Your task to perform on an android device: Search for pizza restaurants on Maps Image 0: 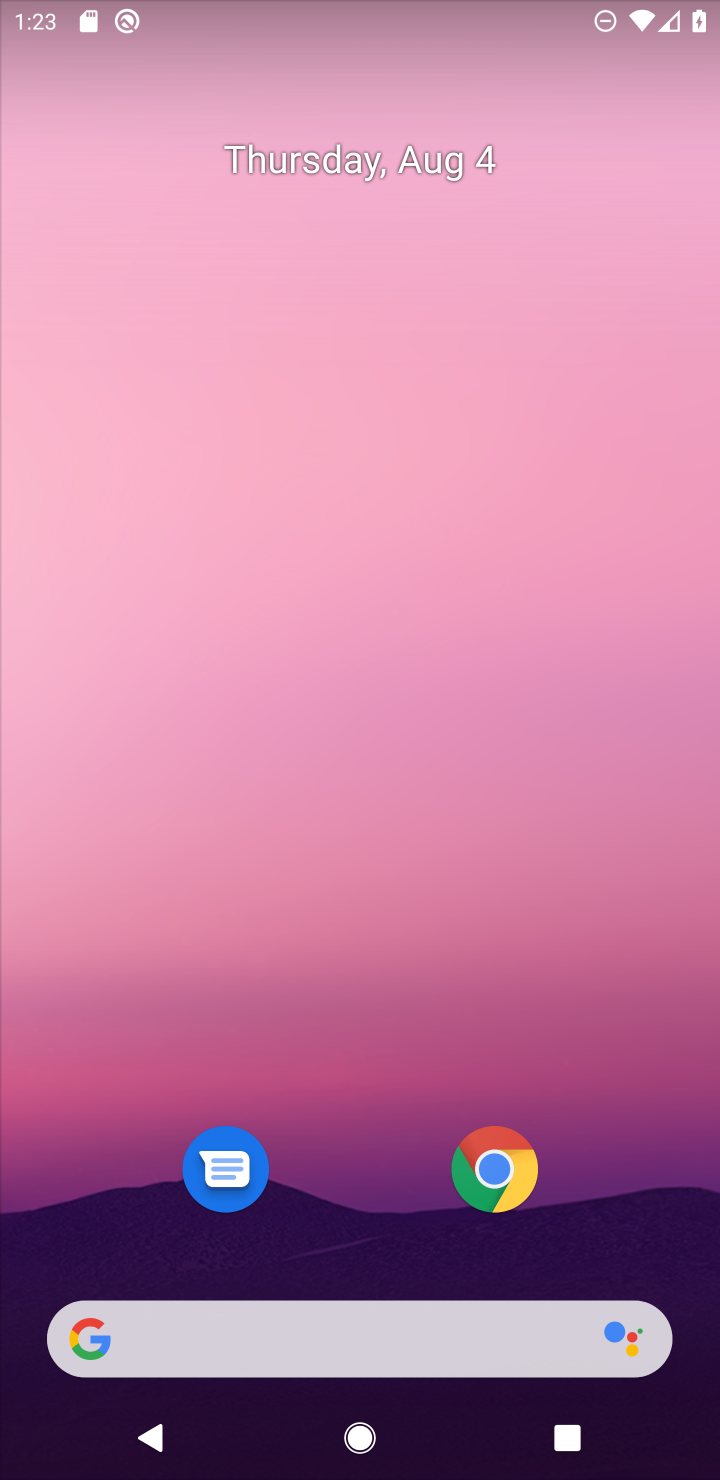
Step 0: drag from (372, 1021) to (399, 19)
Your task to perform on an android device: Search for pizza restaurants on Maps Image 1: 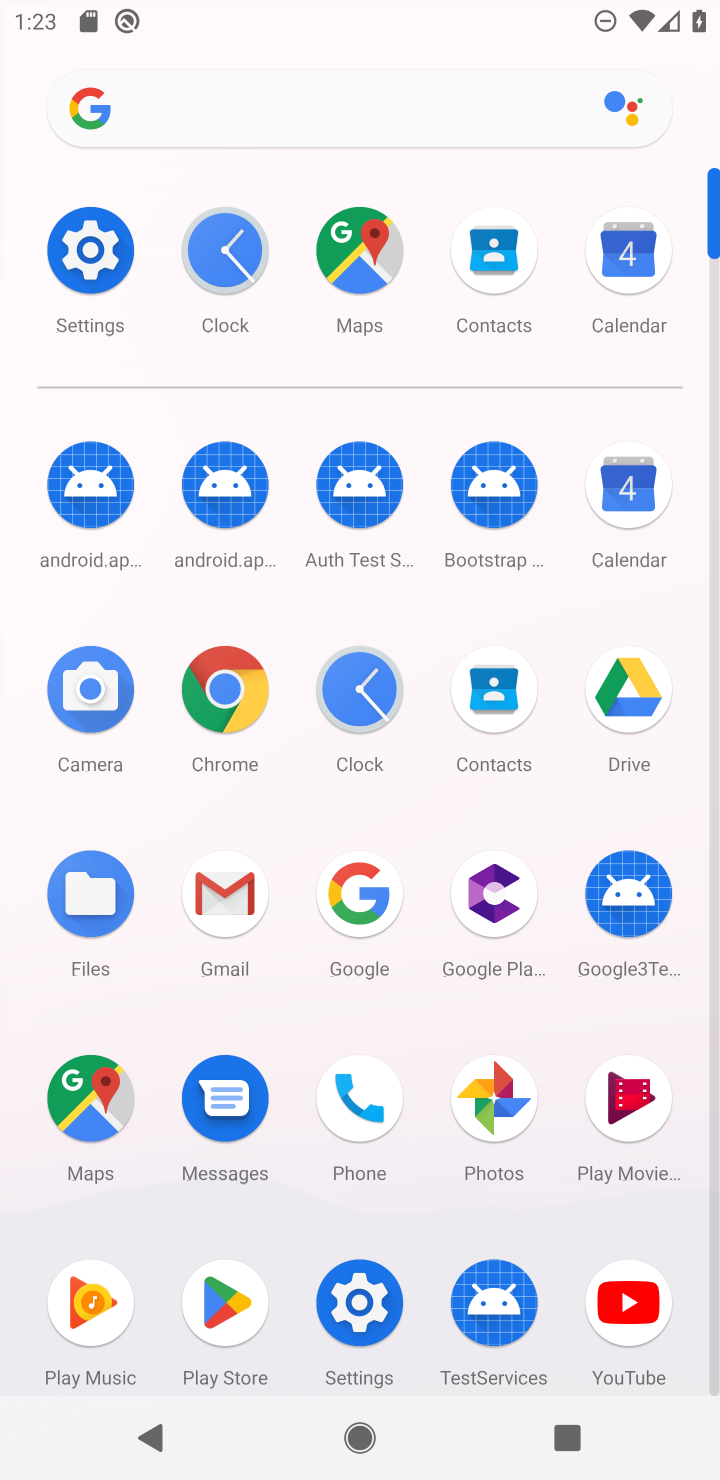
Step 1: click (358, 259)
Your task to perform on an android device: Search for pizza restaurants on Maps Image 2: 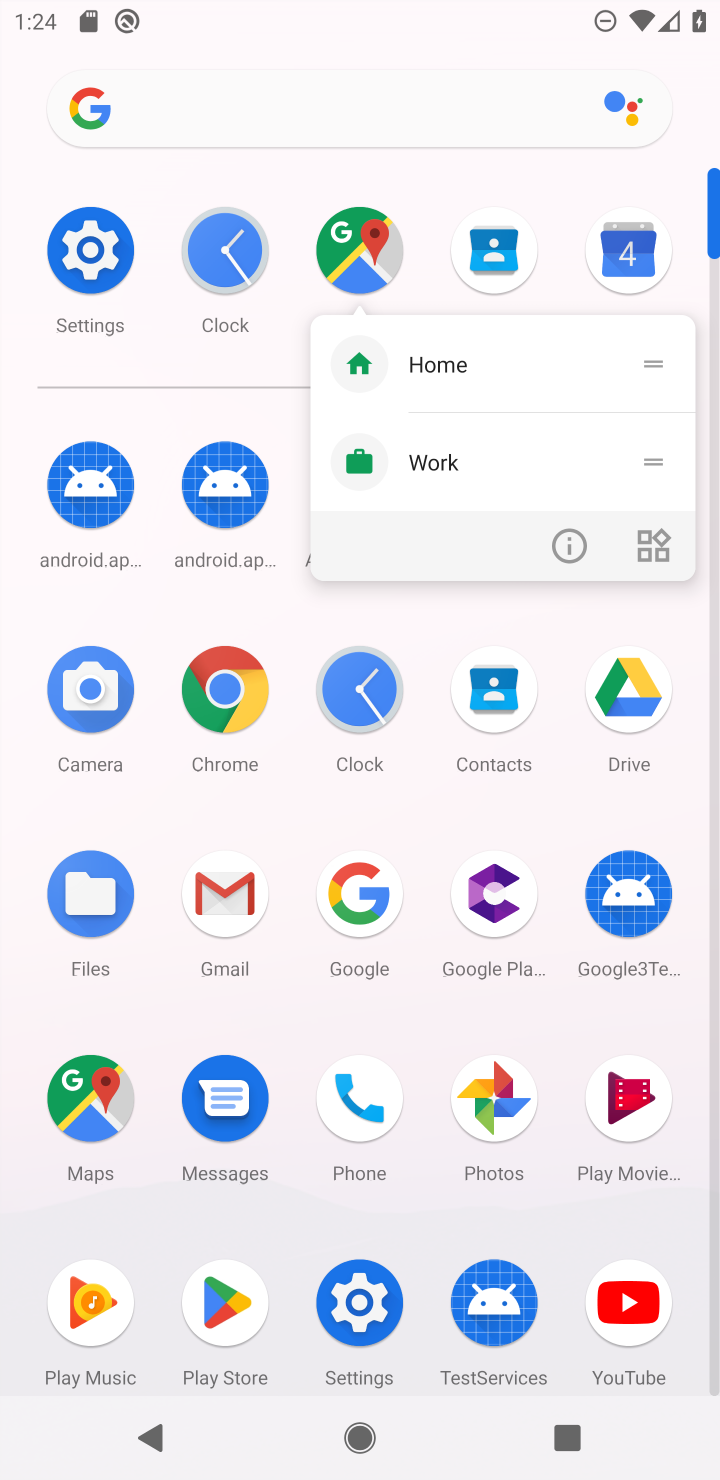
Step 2: click (358, 259)
Your task to perform on an android device: Search for pizza restaurants on Maps Image 3: 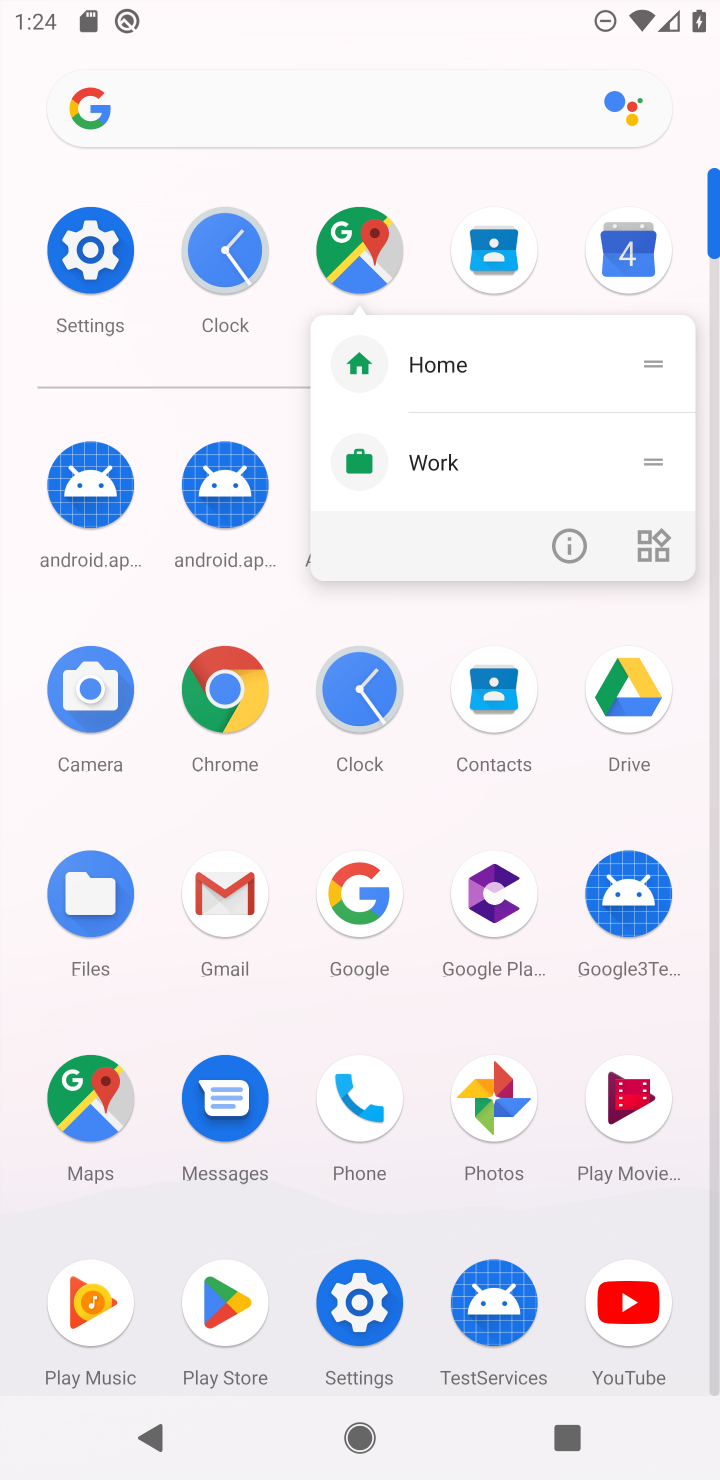
Step 3: click (358, 257)
Your task to perform on an android device: Search for pizza restaurants on Maps Image 4: 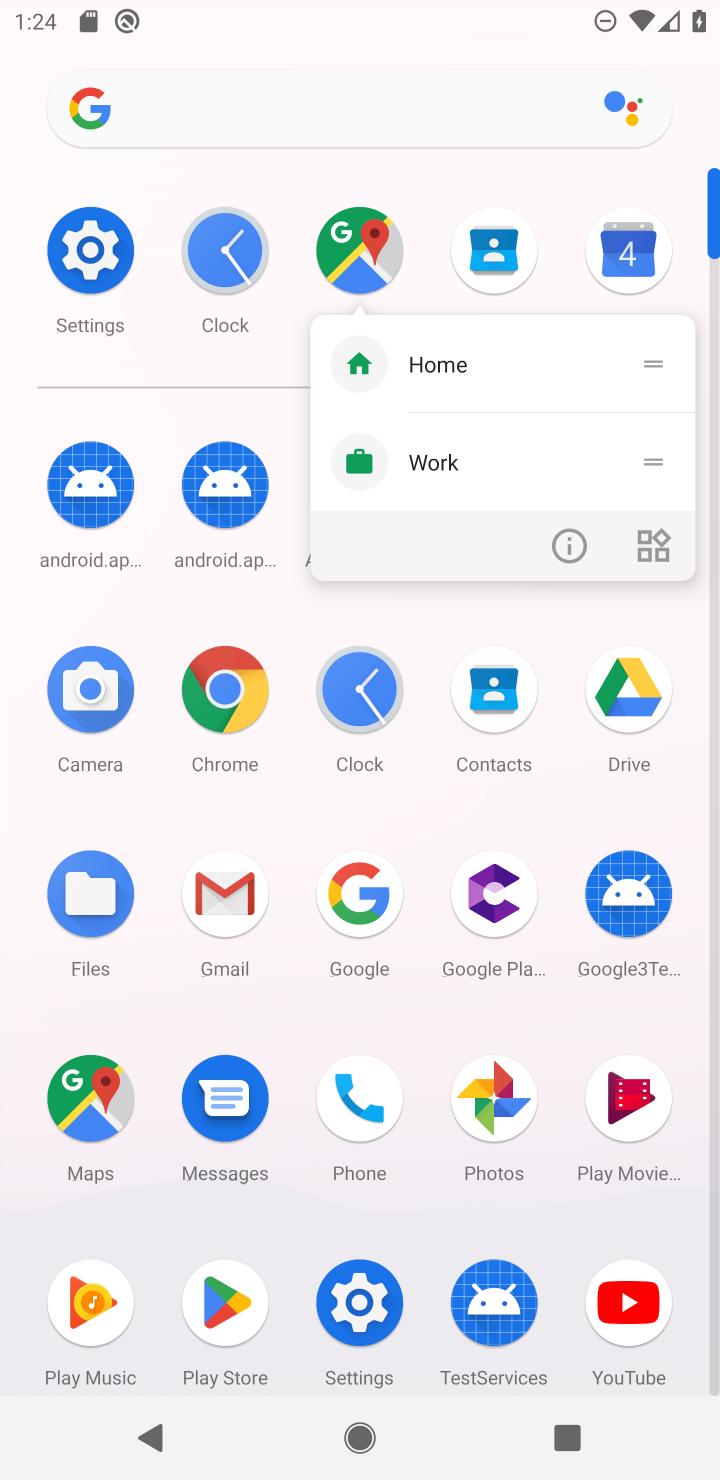
Step 4: click (358, 257)
Your task to perform on an android device: Search for pizza restaurants on Maps Image 5: 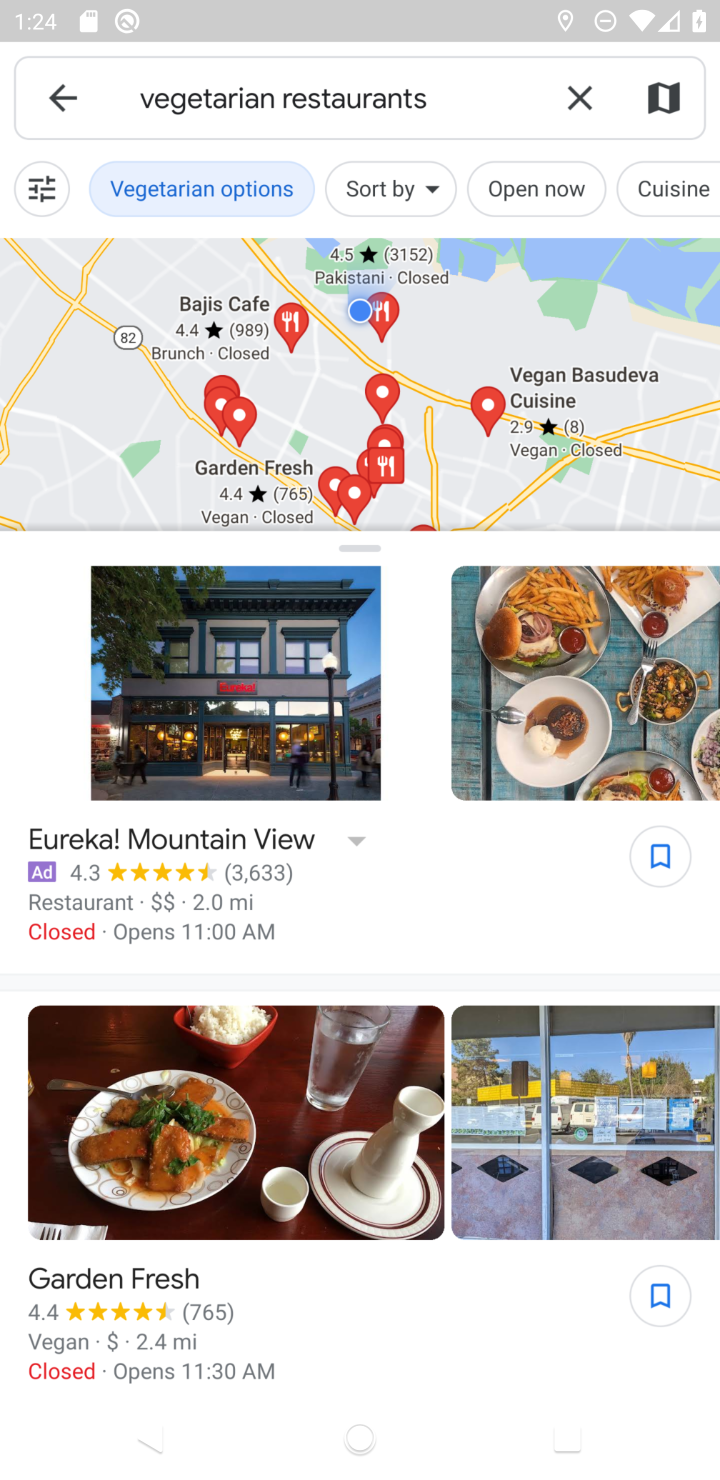
Step 5: click (571, 103)
Your task to perform on an android device: Search for pizza restaurants on Maps Image 6: 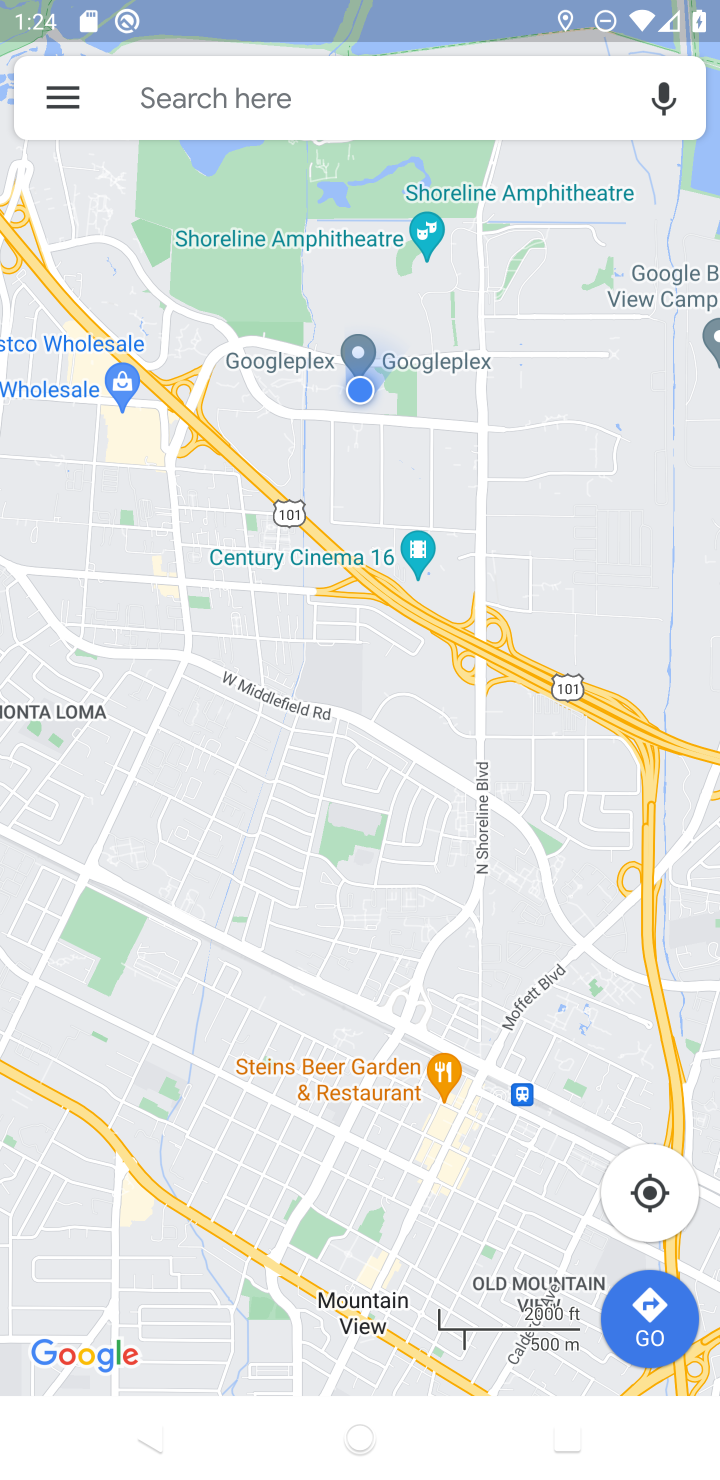
Step 6: click (131, 87)
Your task to perform on an android device: Search for pizza restaurants on Maps Image 7: 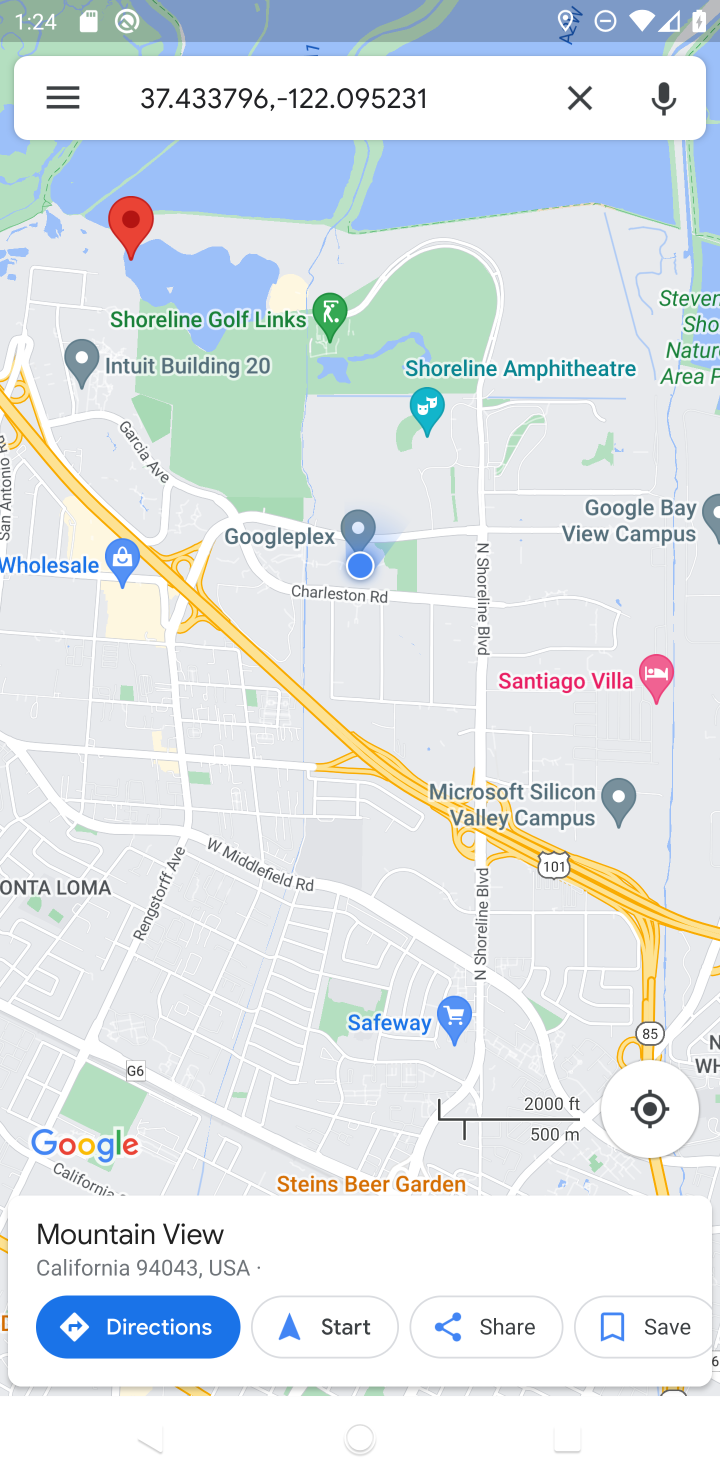
Step 7: click (569, 103)
Your task to perform on an android device: Search for pizza restaurants on Maps Image 8: 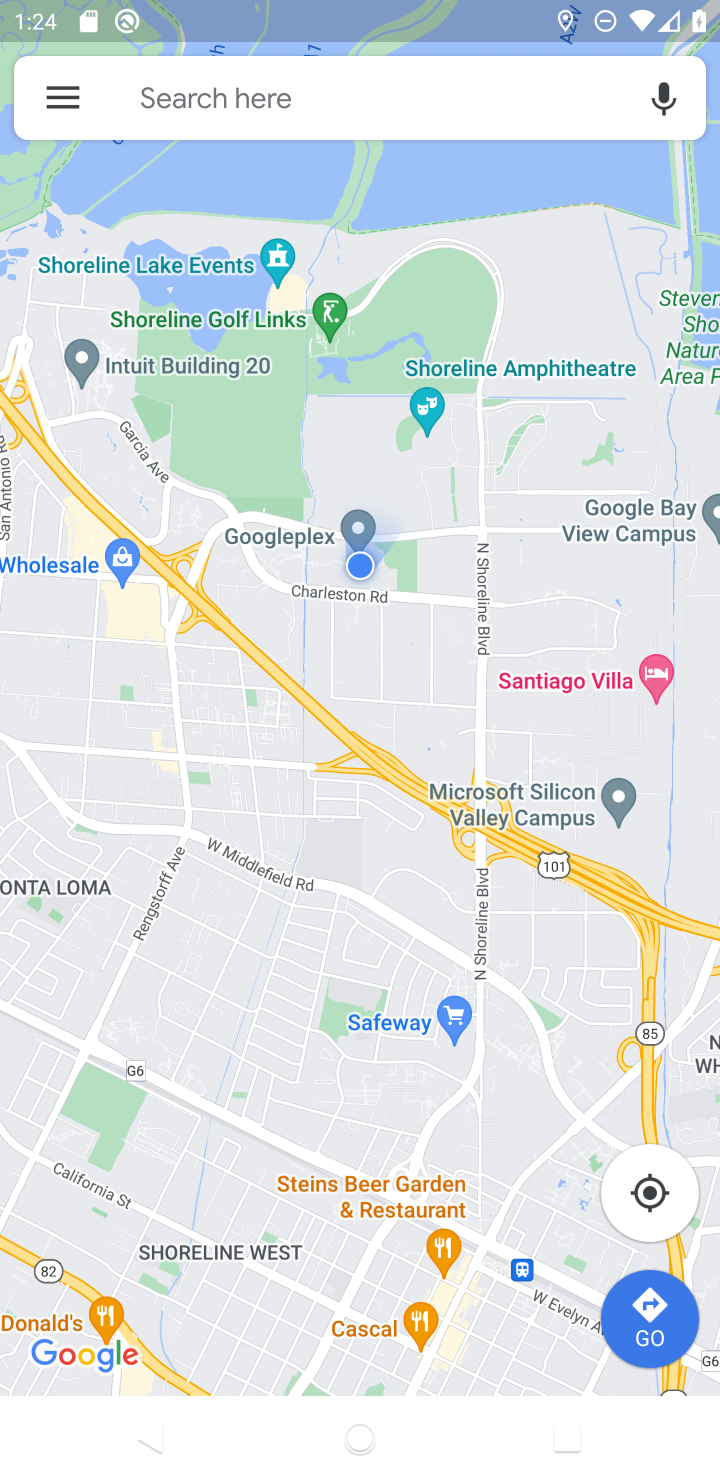
Step 8: click (183, 99)
Your task to perform on an android device: Search for pizza restaurants on Maps Image 9: 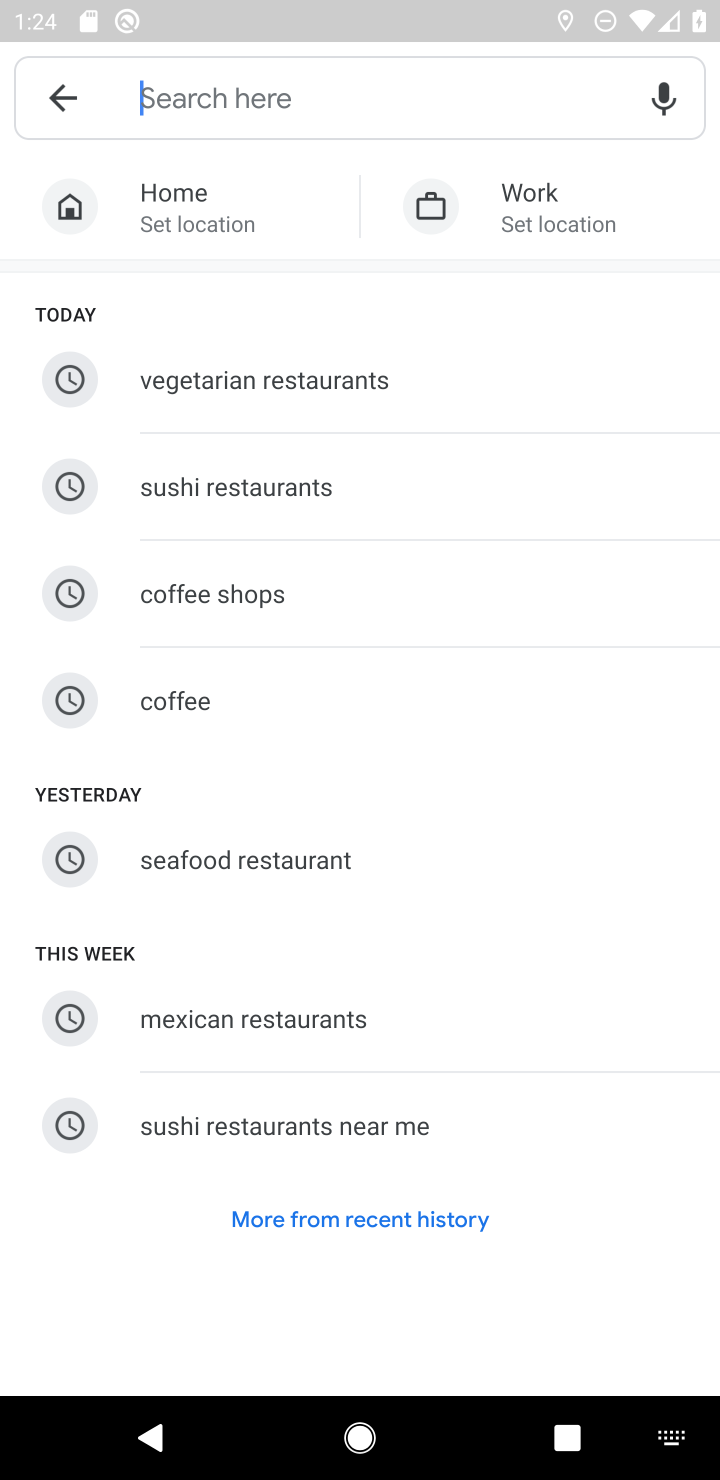
Step 9: type " pizza restaurants "
Your task to perform on an android device: Search for pizza restaurants on Maps Image 10: 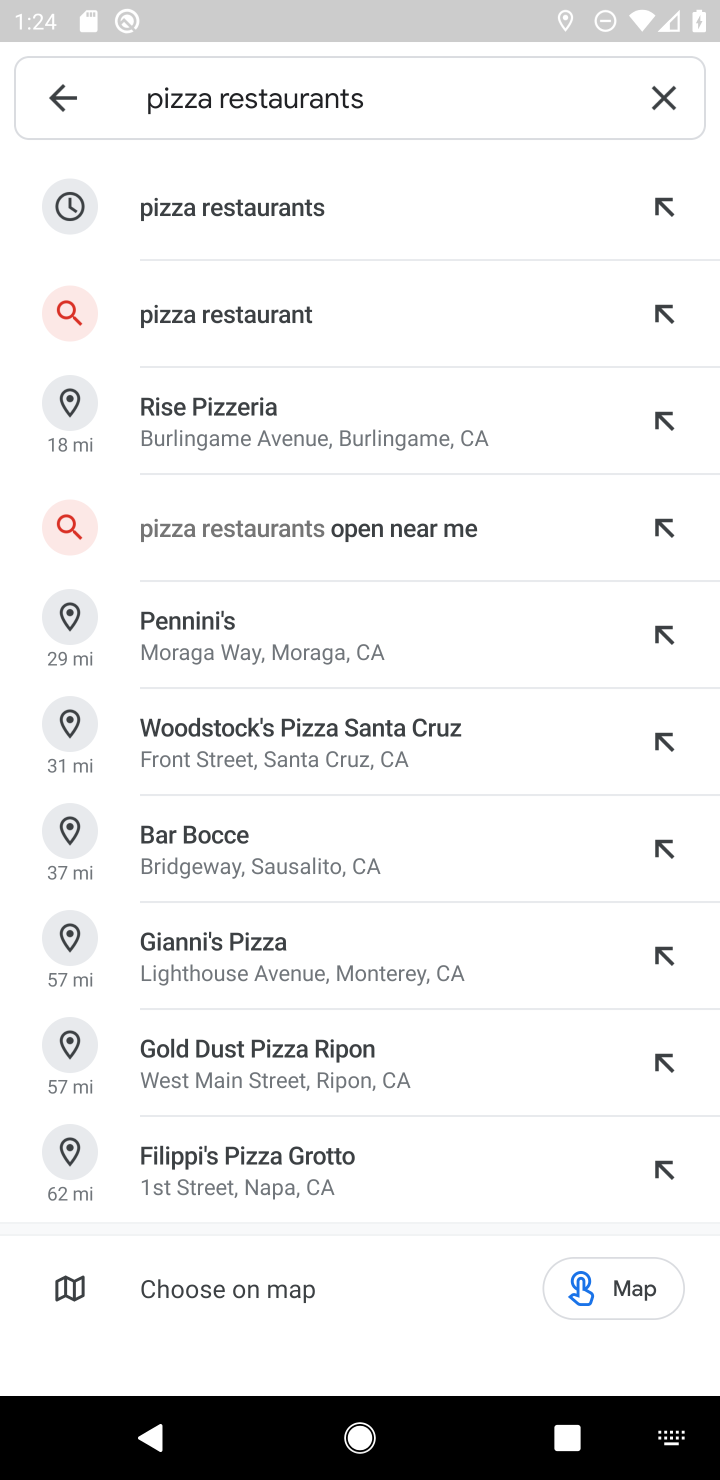
Step 10: click (283, 315)
Your task to perform on an android device: Search for pizza restaurants on Maps Image 11: 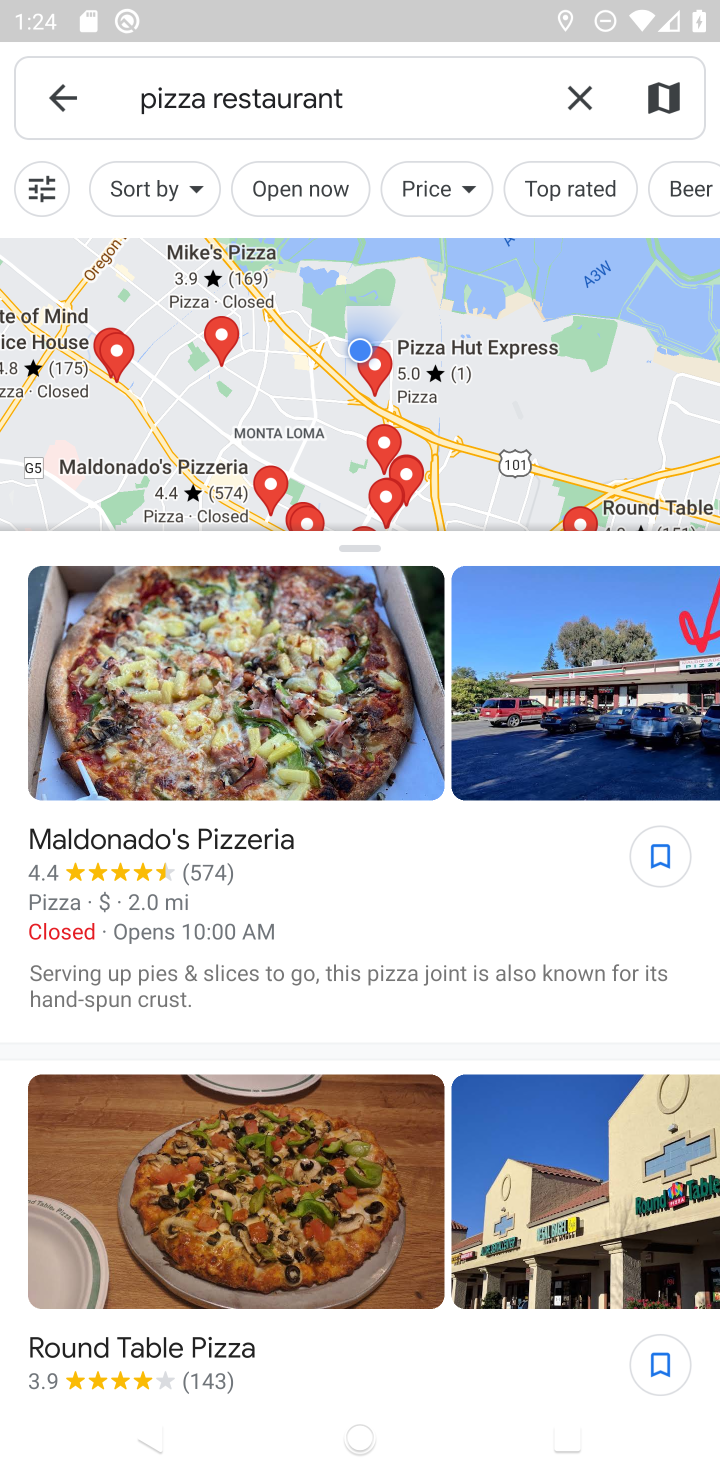
Step 11: task complete